Your task to perform on an android device: Show me popular games on the Play Store Image 0: 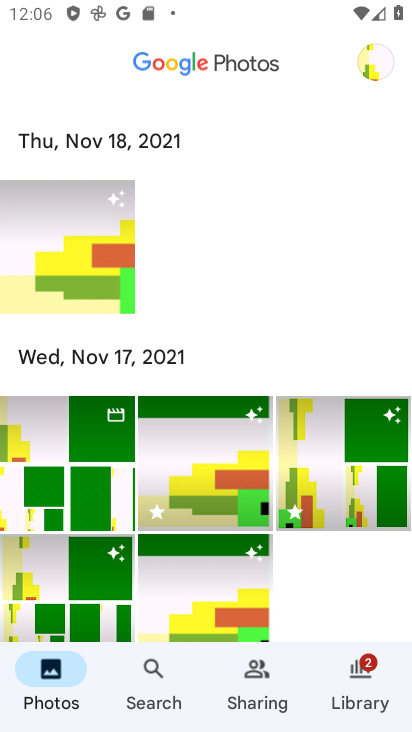
Step 0: press back button
Your task to perform on an android device: Show me popular games on the Play Store Image 1: 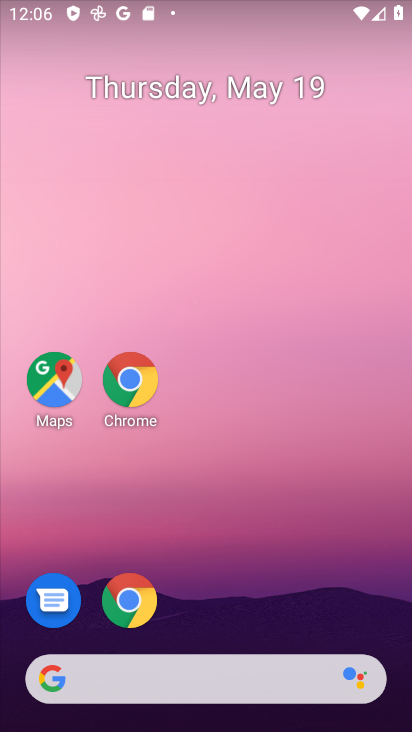
Step 1: drag from (313, 530) to (123, 35)
Your task to perform on an android device: Show me popular games on the Play Store Image 2: 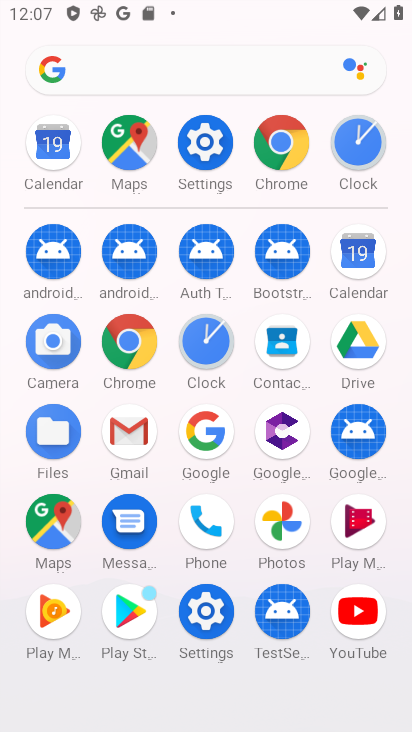
Step 2: click (125, 624)
Your task to perform on an android device: Show me popular games on the Play Store Image 3: 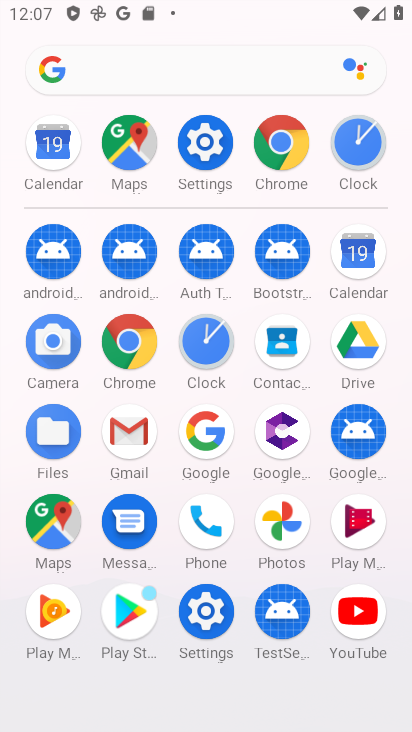
Step 3: click (125, 623)
Your task to perform on an android device: Show me popular games on the Play Store Image 4: 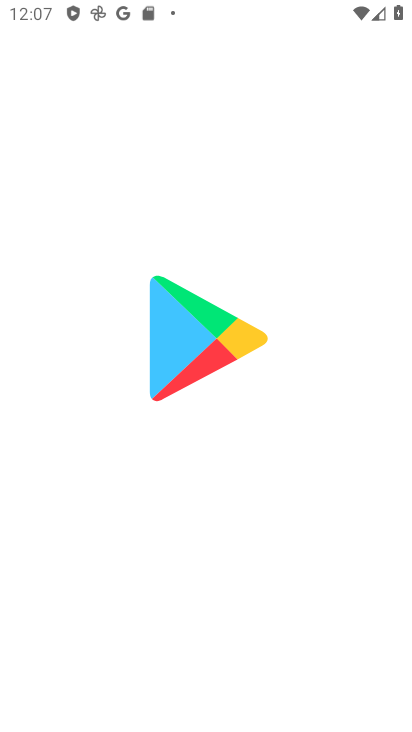
Step 4: click (125, 621)
Your task to perform on an android device: Show me popular games on the Play Store Image 5: 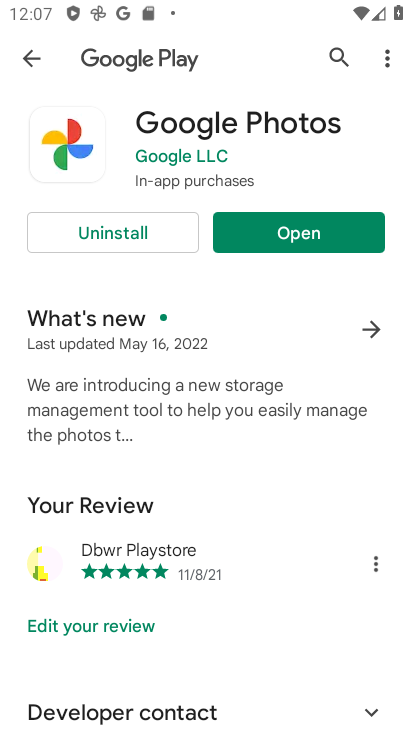
Step 5: press back button
Your task to perform on an android device: Show me popular games on the Play Store Image 6: 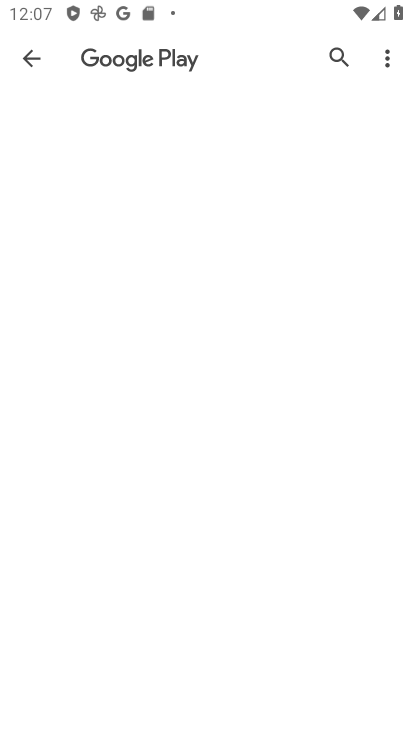
Step 6: press back button
Your task to perform on an android device: Show me popular games on the Play Store Image 7: 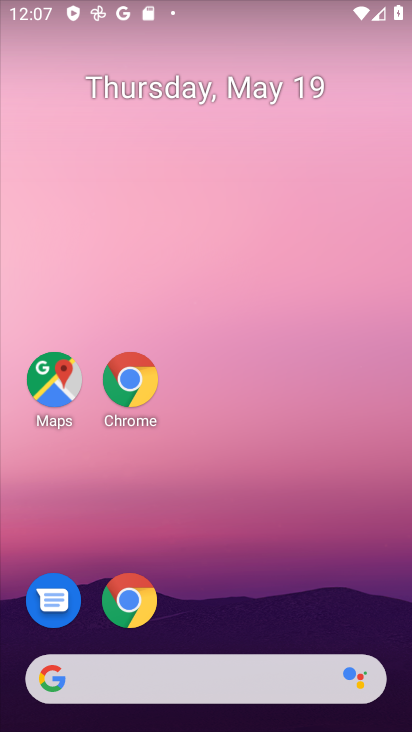
Step 7: drag from (235, 601) to (120, 185)
Your task to perform on an android device: Show me popular games on the Play Store Image 8: 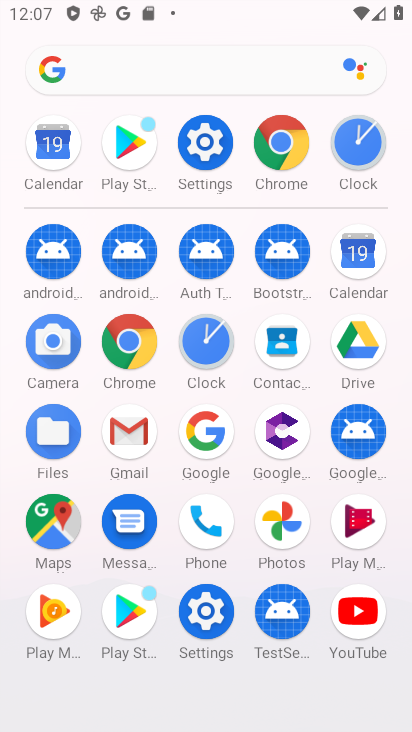
Step 8: click (122, 614)
Your task to perform on an android device: Show me popular games on the Play Store Image 9: 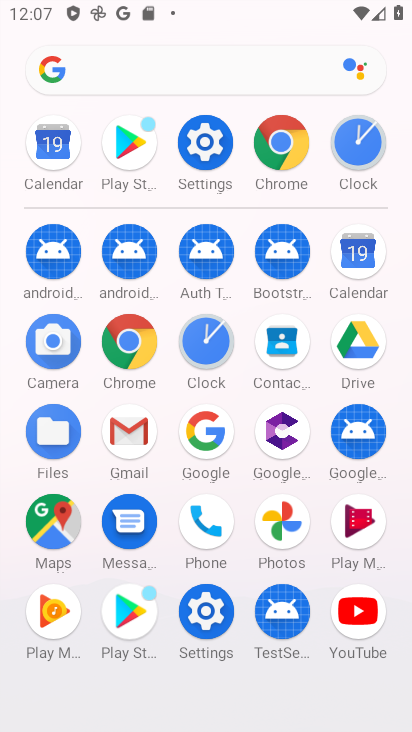
Step 9: click (123, 614)
Your task to perform on an android device: Show me popular games on the Play Store Image 10: 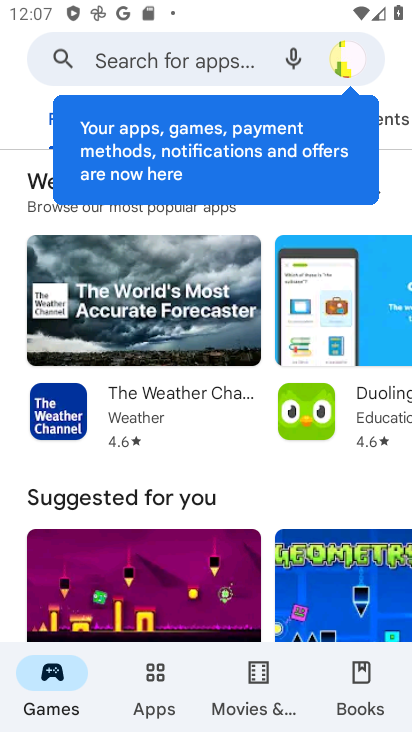
Step 10: click (109, 54)
Your task to perform on an android device: Show me popular games on the Play Store Image 11: 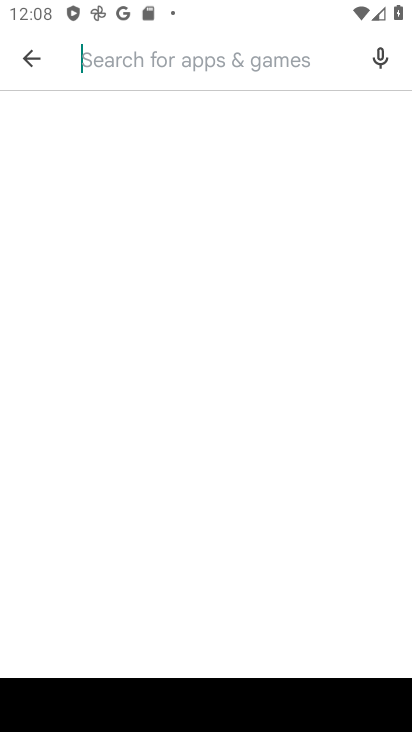
Step 11: type "popular games"
Your task to perform on an android device: Show me popular games on the Play Store Image 12: 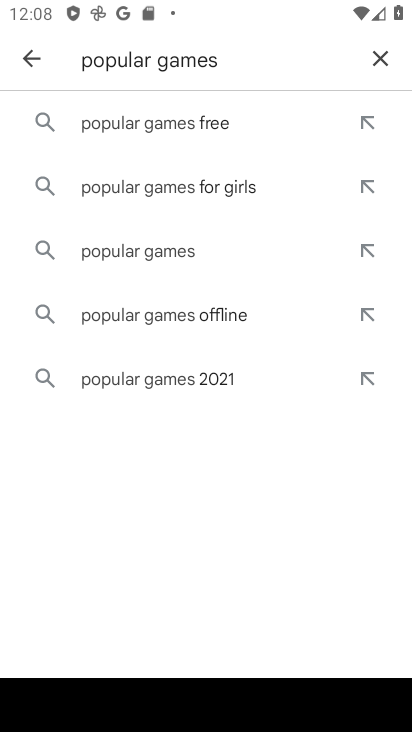
Step 12: click (178, 122)
Your task to perform on an android device: Show me popular games on the Play Store Image 13: 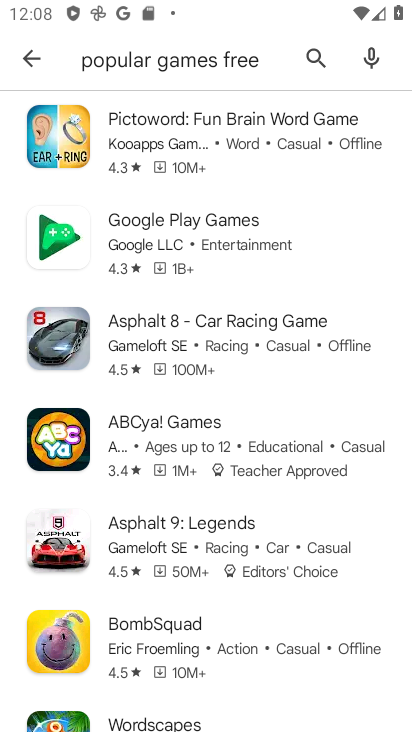
Step 13: drag from (164, 535) to (98, 231)
Your task to perform on an android device: Show me popular games on the Play Store Image 14: 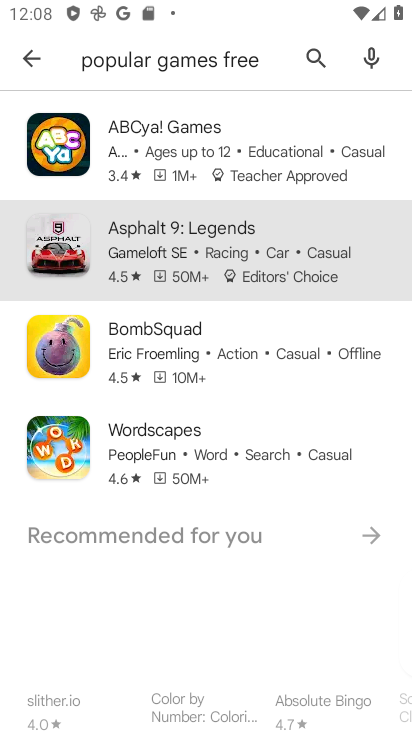
Step 14: drag from (113, 367) to (136, 136)
Your task to perform on an android device: Show me popular games on the Play Store Image 15: 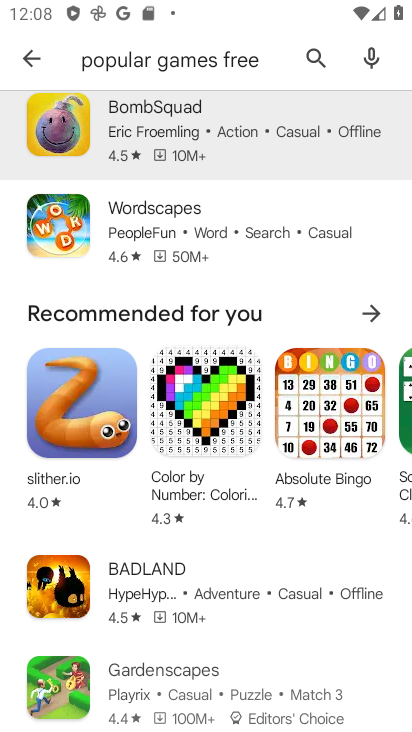
Step 15: drag from (133, 353) to (142, 193)
Your task to perform on an android device: Show me popular games on the Play Store Image 16: 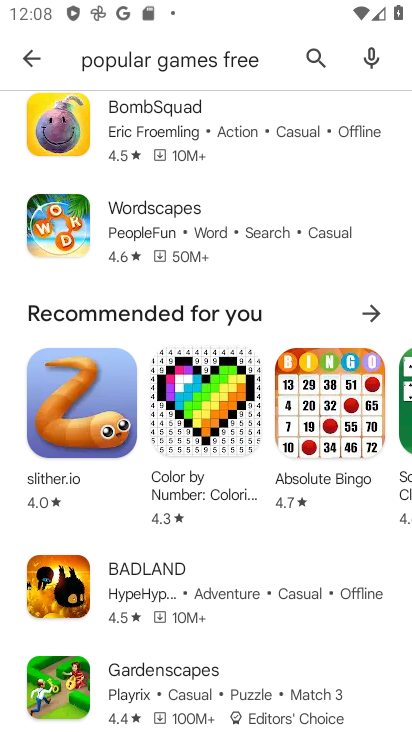
Step 16: drag from (132, 263) to (180, 605)
Your task to perform on an android device: Show me popular games on the Play Store Image 17: 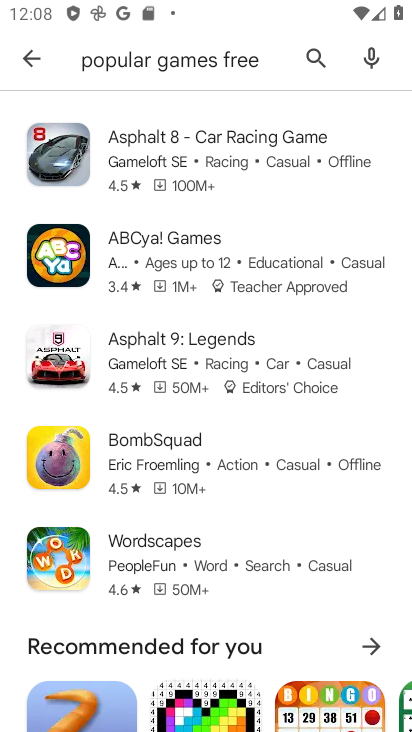
Step 17: drag from (172, 434) to (212, 574)
Your task to perform on an android device: Show me popular games on the Play Store Image 18: 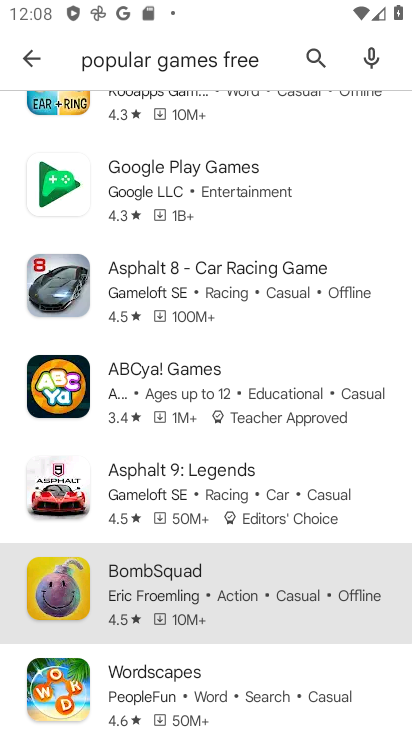
Step 18: click (177, 594)
Your task to perform on an android device: Show me popular games on the Play Store Image 19: 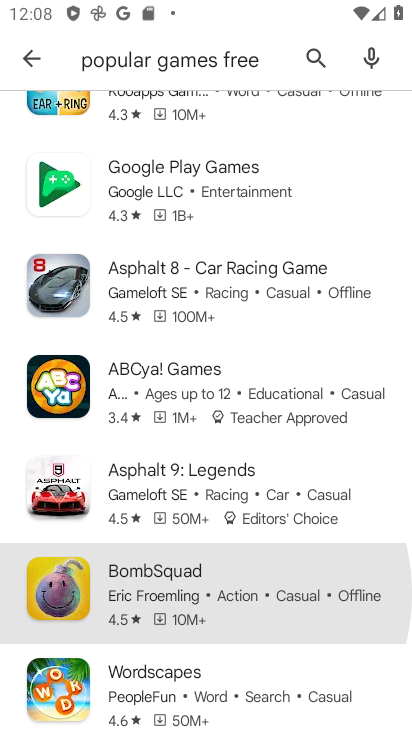
Step 19: drag from (133, 256) to (187, 546)
Your task to perform on an android device: Show me popular games on the Play Store Image 20: 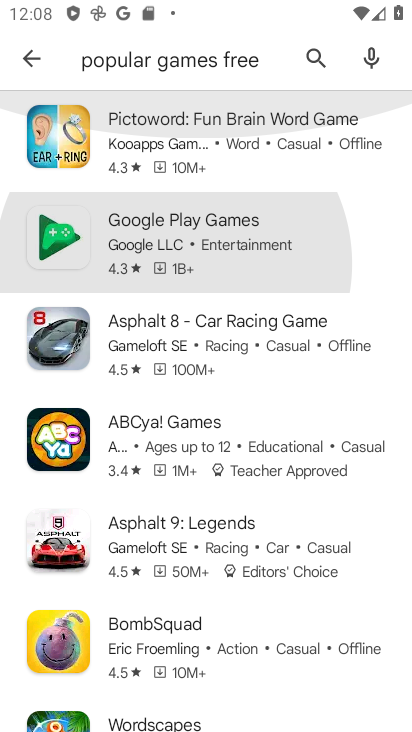
Step 20: drag from (156, 418) to (177, 511)
Your task to perform on an android device: Show me popular games on the Play Store Image 21: 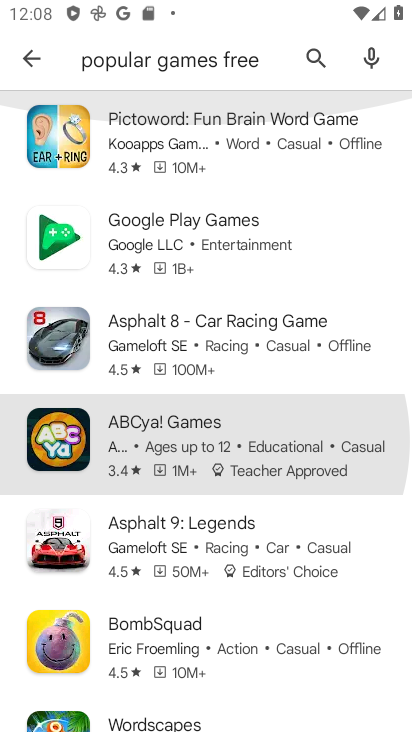
Step 21: drag from (105, 334) to (179, 649)
Your task to perform on an android device: Show me popular games on the Play Store Image 22: 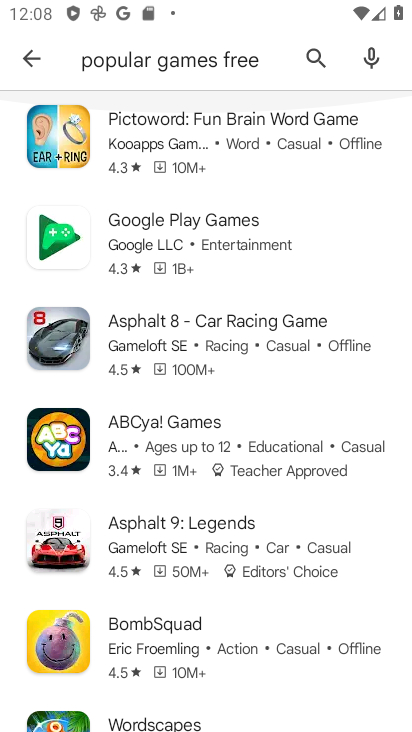
Step 22: click (193, 596)
Your task to perform on an android device: Show me popular games on the Play Store Image 23: 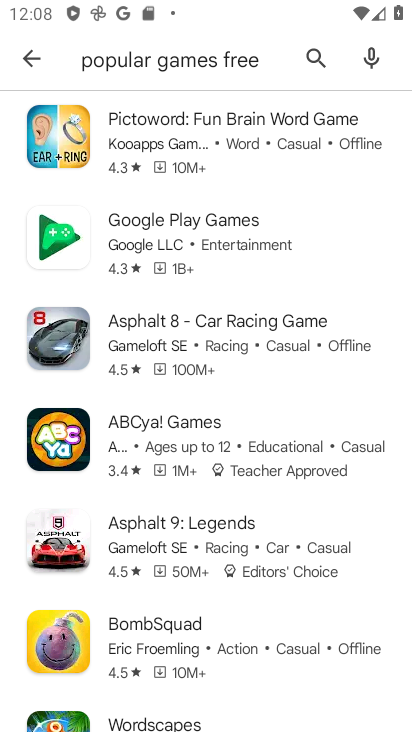
Step 23: task complete